Your task to perform on an android device: Show me popular games on the Play Store Image 0: 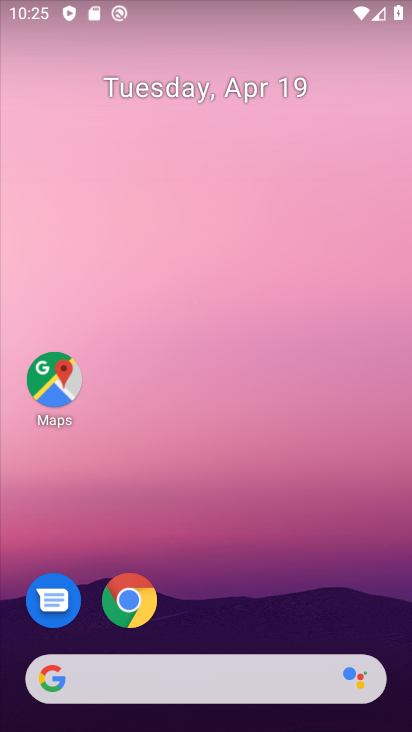
Step 0: drag from (190, 634) to (315, 30)
Your task to perform on an android device: Show me popular games on the Play Store Image 1: 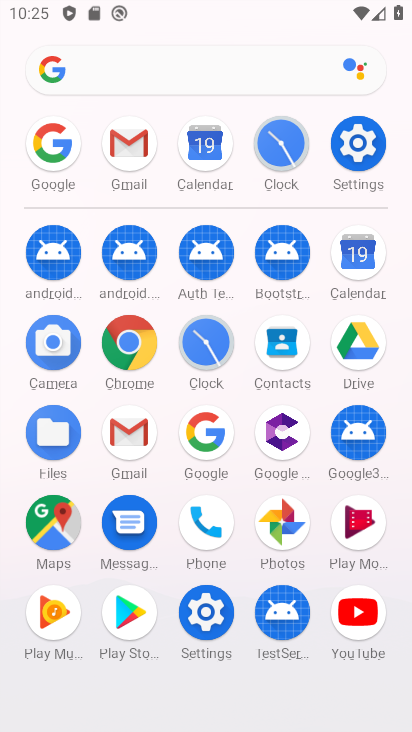
Step 1: click (117, 610)
Your task to perform on an android device: Show me popular games on the Play Store Image 2: 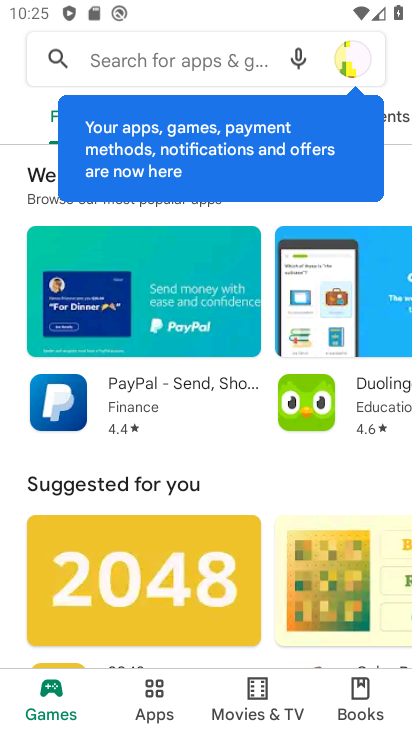
Step 2: click (35, 115)
Your task to perform on an android device: Show me popular games on the Play Store Image 3: 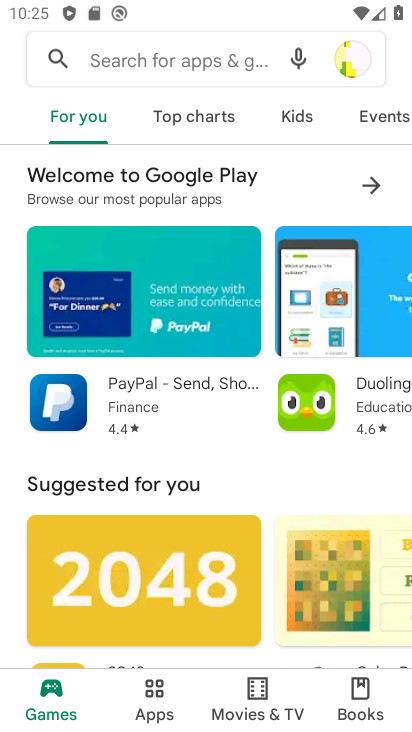
Step 3: click (210, 120)
Your task to perform on an android device: Show me popular games on the Play Store Image 4: 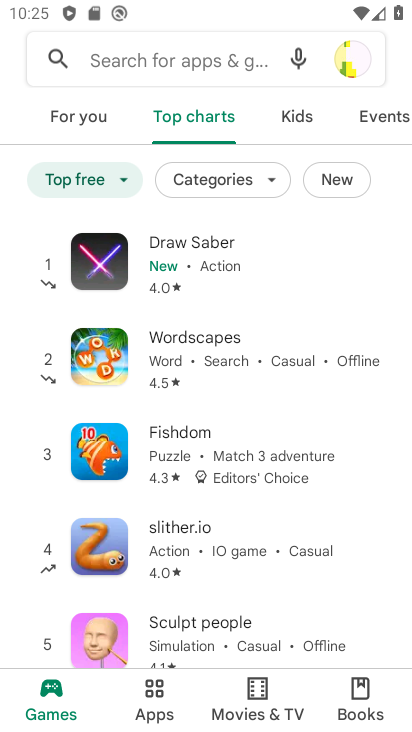
Step 4: task complete